Your task to perform on an android device: turn off location Image 0: 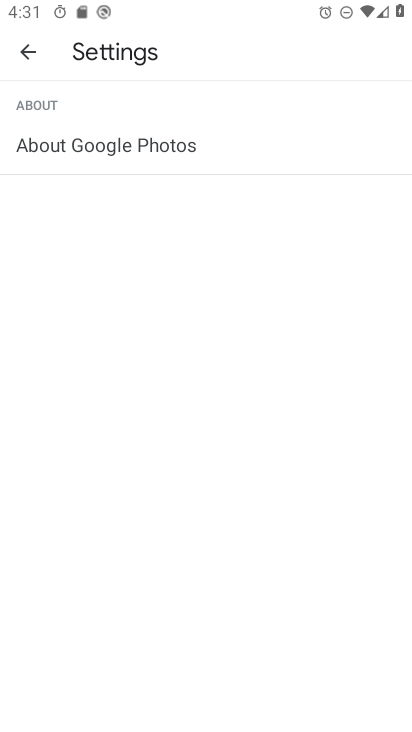
Step 0: press home button
Your task to perform on an android device: turn off location Image 1: 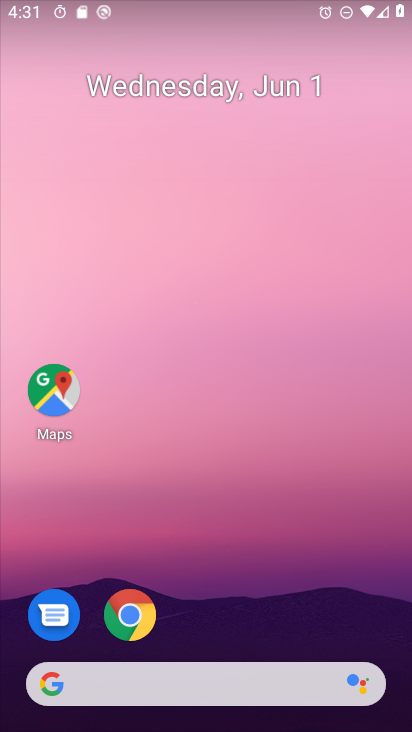
Step 1: drag from (307, 607) to (237, 61)
Your task to perform on an android device: turn off location Image 2: 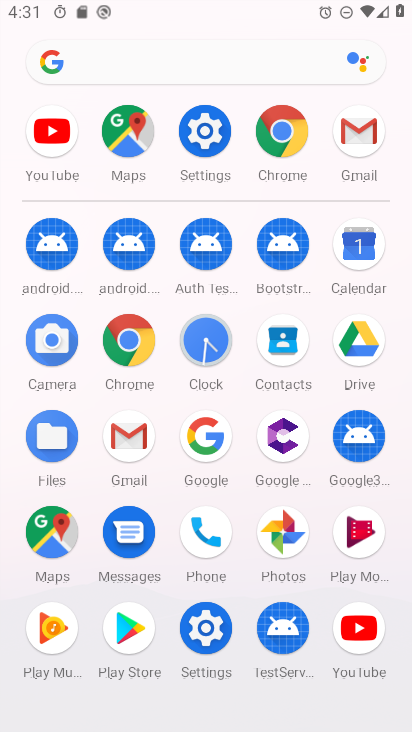
Step 2: click (218, 134)
Your task to perform on an android device: turn off location Image 3: 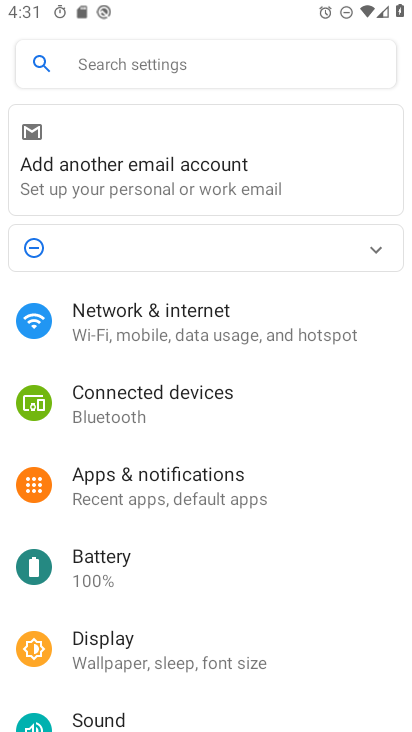
Step 3: drag from (300, 627) to (294, 321)
Your task to perform on an android device: turn off location Image 4: 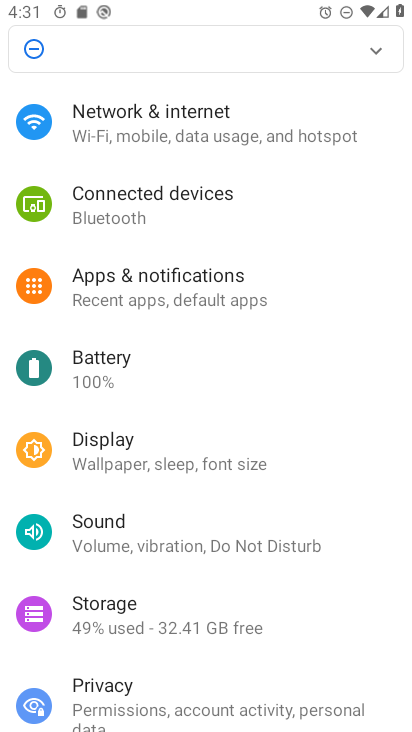
Step 4: drag from (299, 482) to (267, 193)
Your task to perform on an android device: turn off location Image 5: 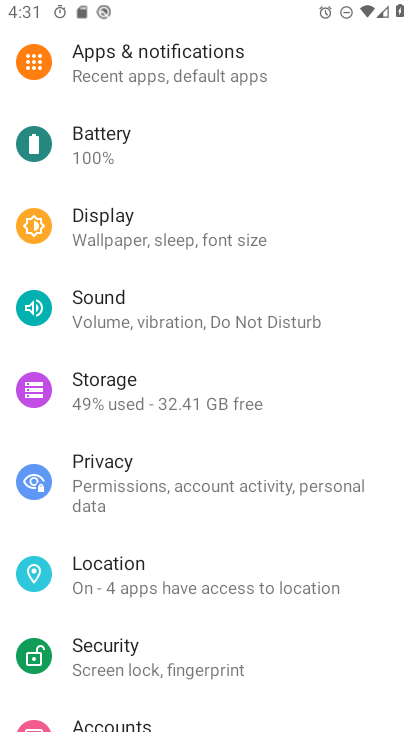
Step 5: drag from (218, 662) to (221, 355)
Your task to perform on an android device: turn off location Image 6: 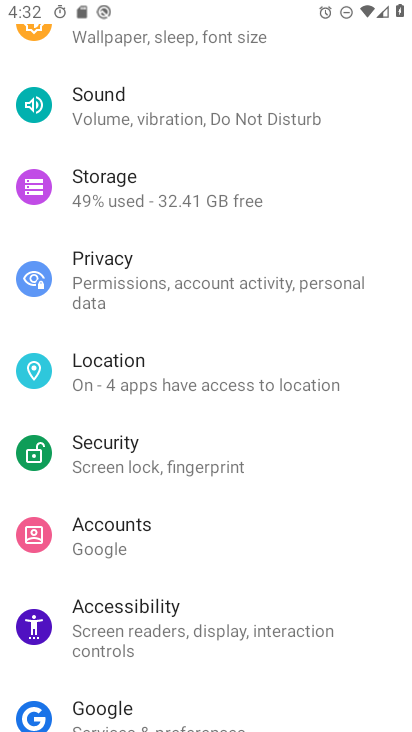
Step 6: drag from (225, 690) to (263, 360)
Your task to perform on an android device: turn off location Image 7: 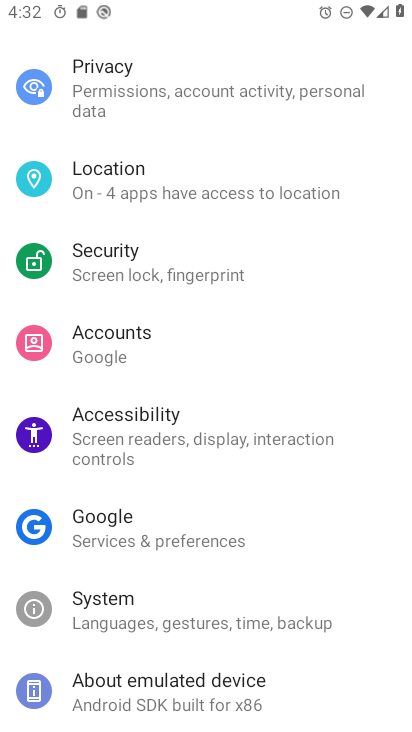
Step 7: drag from (277, 455) to (276, 338)
Your task to perform on an android device: turn off location Image 8: 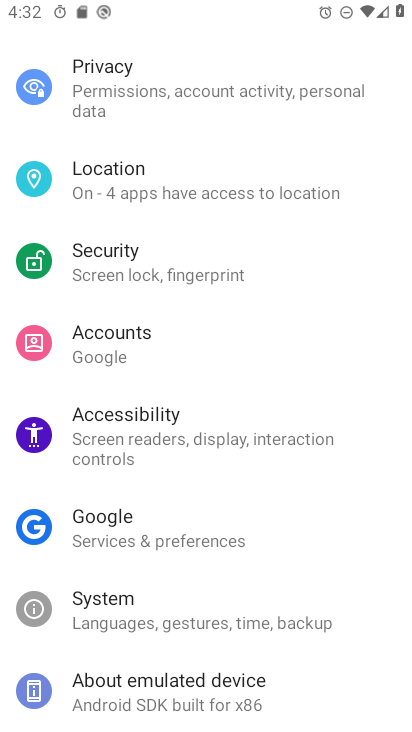
Step 8: drag from (300, 286) to (272, 486)
Your task to perform on an android device: turn off location Image 9: 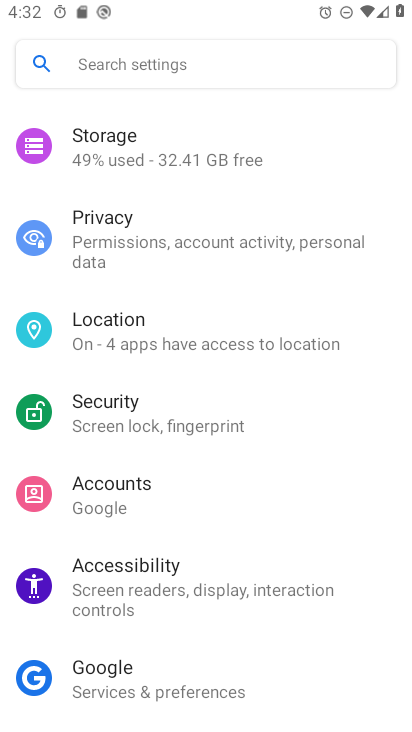
Step 9: drag from (259, 237) to (208, 458)
Your task to perform on an android device: turn off location Image 10: 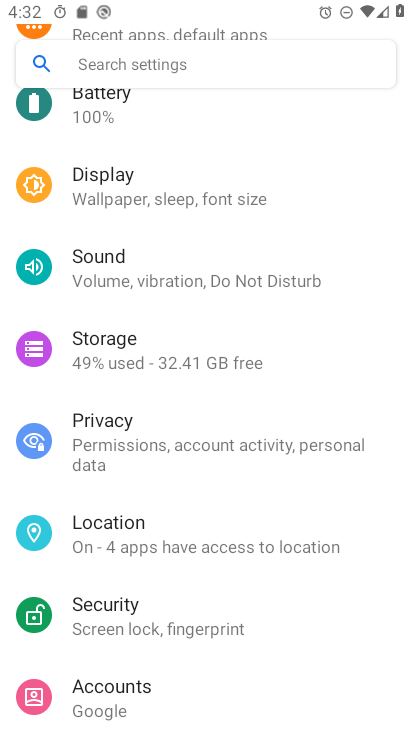
Step 10: drag from (224, 251) to (169, 508)
Your task to perform on an android device: turn off location Image 11: 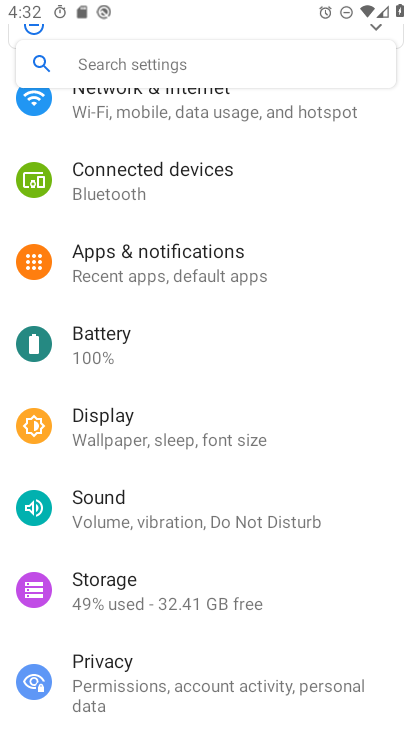
Step 11: drag from (240, 334) to (197, 539)
Your task to perform on an android device: turn off location Image 12: 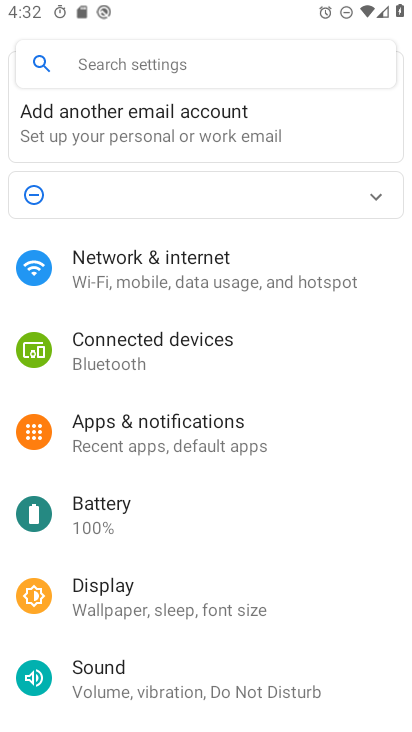
Step 12: click (227, 430)
Your task to perform on an android device: turn off location Image 13: 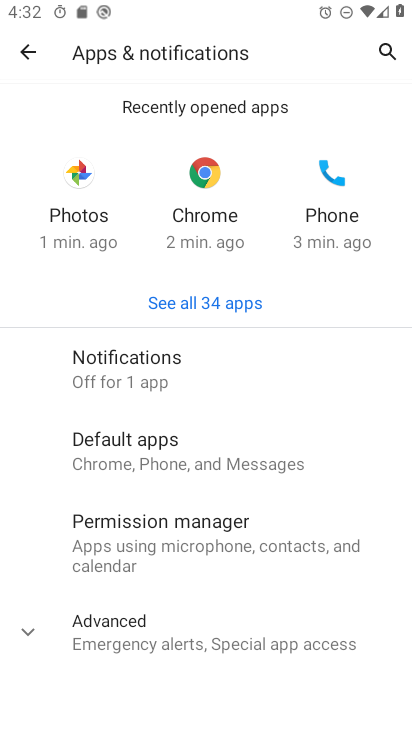
Step 13: click (193, 631)
Your task to perform on an android device: turn off location Image 14: 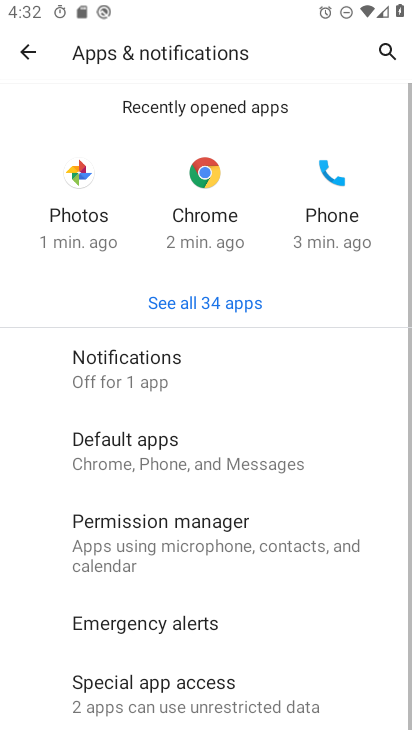
Step 14: drag from (280, 612) to (289, 328)
Your task to perform on an android device: turn off location Image 15: 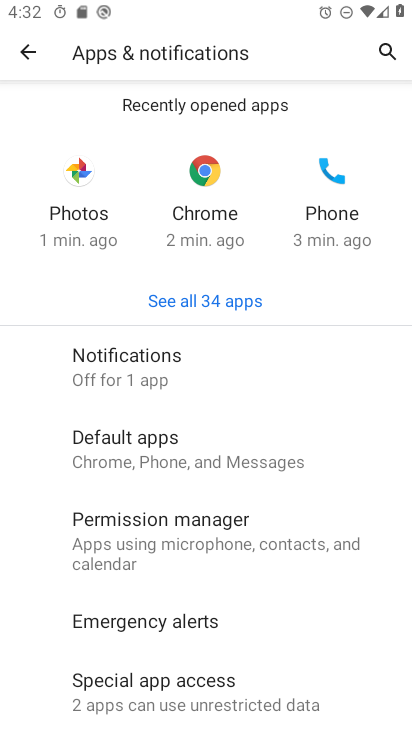
Step 15: press back button
Your task to perform on an android device: turn off location Image 16: 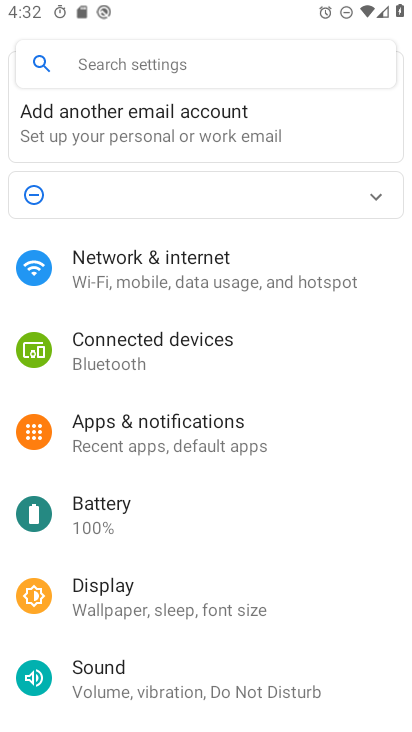
Step 16: drag from (246, 588) to (283, 333)
Your task to perform on an android device: turn off location Image 17: 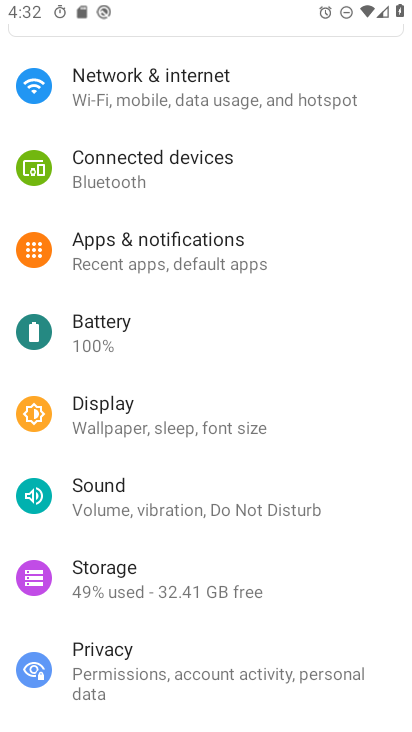
Step 17: drag from (302, 591) to (335, 296)
Your task to perform on an android device: turn off location Image 18: 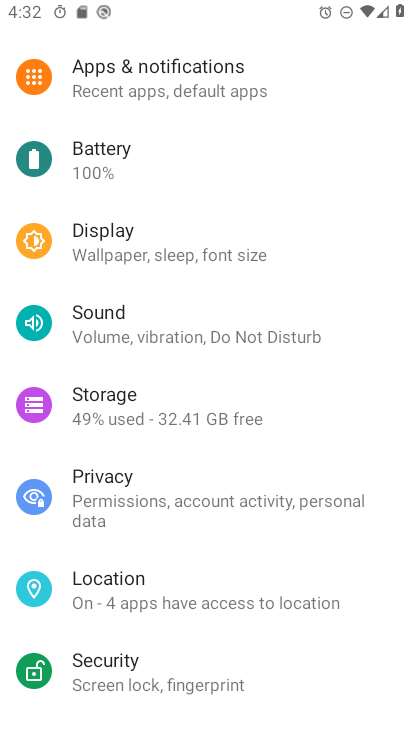
Step 18: click (145, 590)
Your task to perform on an android device: turn off location Image 19: 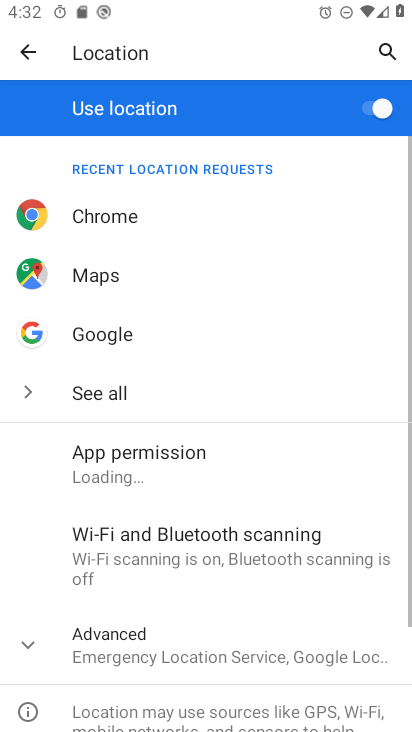
Step 19: click (384, 116)
Your task to perform on an android device: turn off location Image 20: 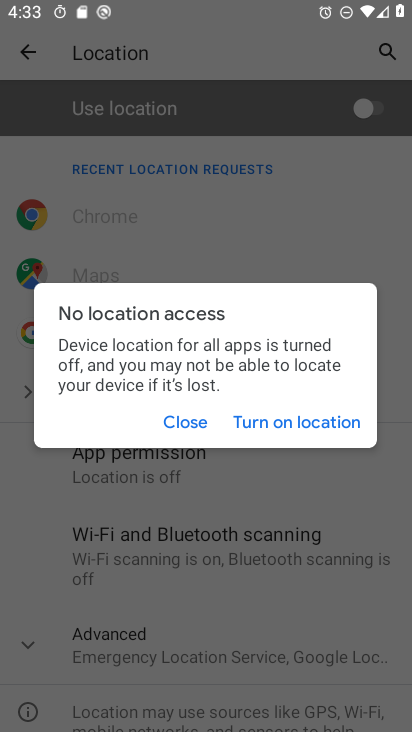
Step 20: click (179, 418)
Your task to perform on an android device: turn off location Image 21: 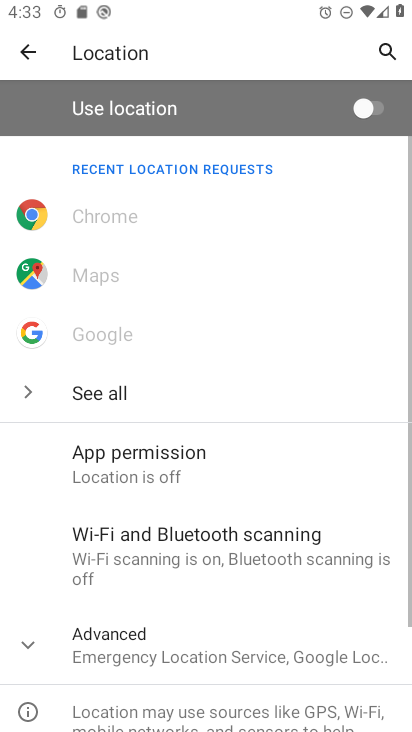
Step 21: task complete